Your task to perform on an android device: change the clock display to digital Image 0: 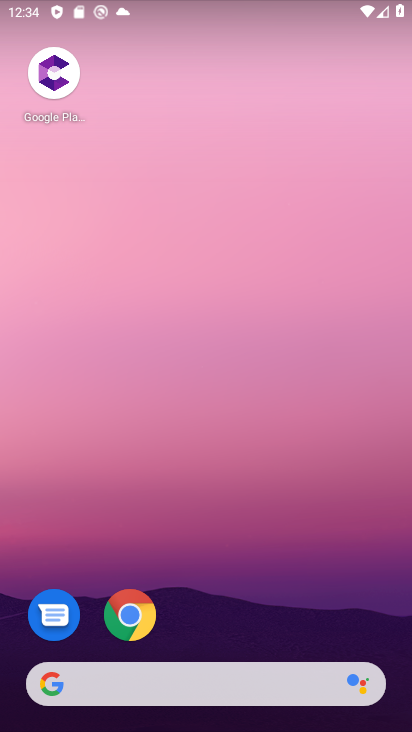
Step 0: drag from (22, 391) to (405, 371)
Your task to perform on an android device: change the clock display to digital Image 1: 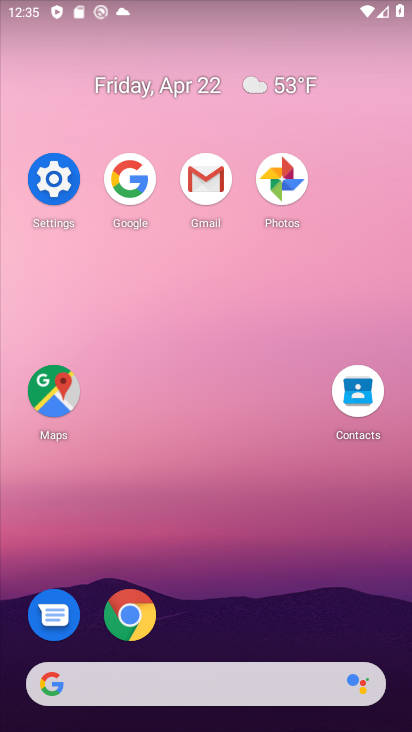
Step 1: drag from (234, 466) to (263, 157)
Your task to perform on an android device: change the clock display to digital Image 2: 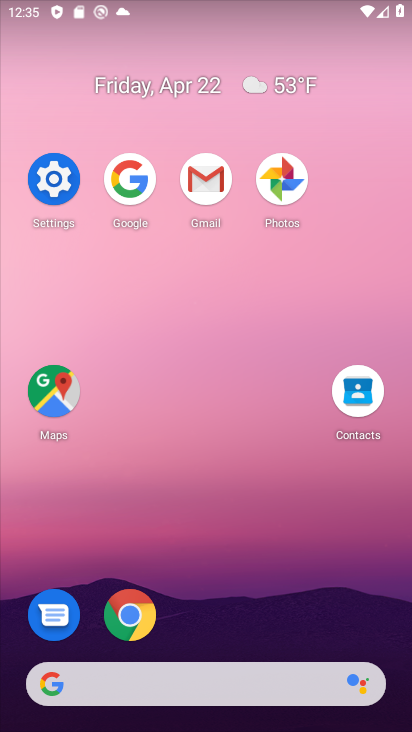
Step 2: drag from (249, 636) to (249, 107)
Your task to perform on an android device: change the clock display to digital Image 3: 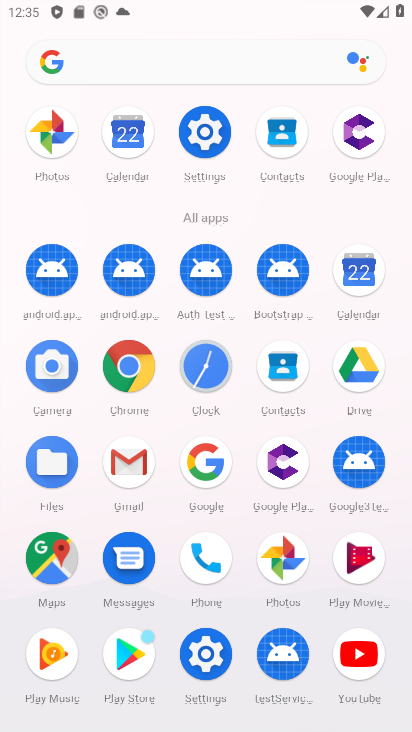
Step 3: drag from (199, 370) to (72, 288)
Your task to perform on an android device: change the clock display to digital Image 4: 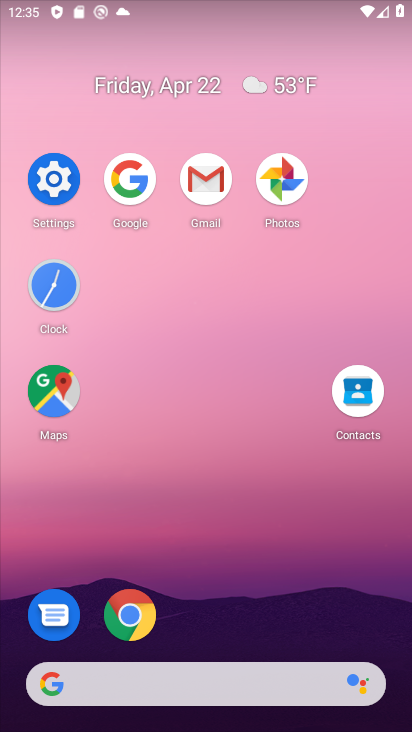
Step 4: click (56, 287)
Your task to perform on an android device: change the clock display to digital Image 5: 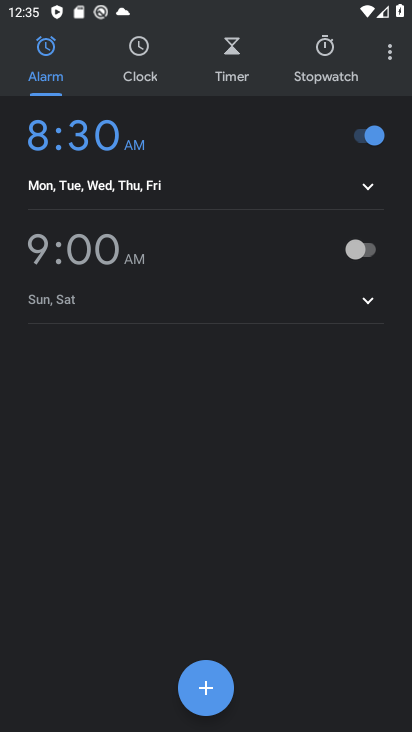
Step 5: click (376, 50)
Your task to perform on an android device: change the clock display to digital Image 6: 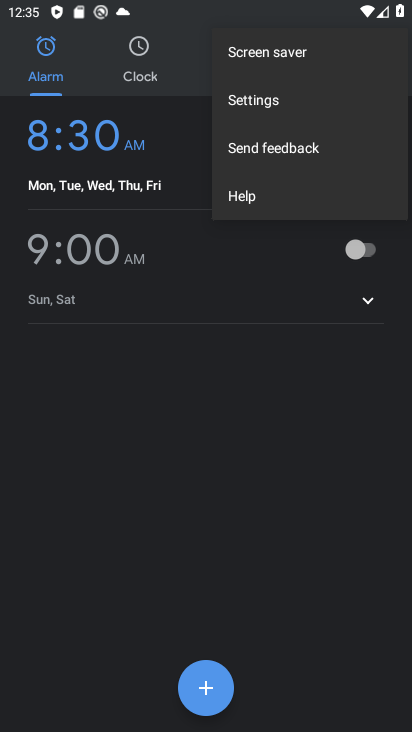
Step 6: click (274, 119)
Your task to perform on an android device: change the clock display to digital Image 7: 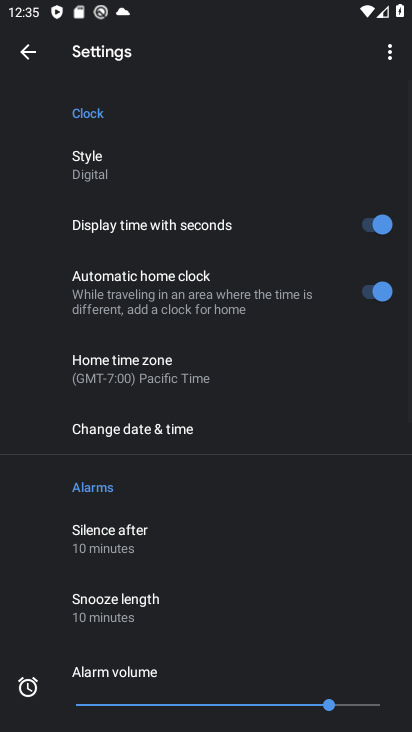
Step 7: click (118, 183)
Your task to perform on an android device: change the clock display to digital Image 8: 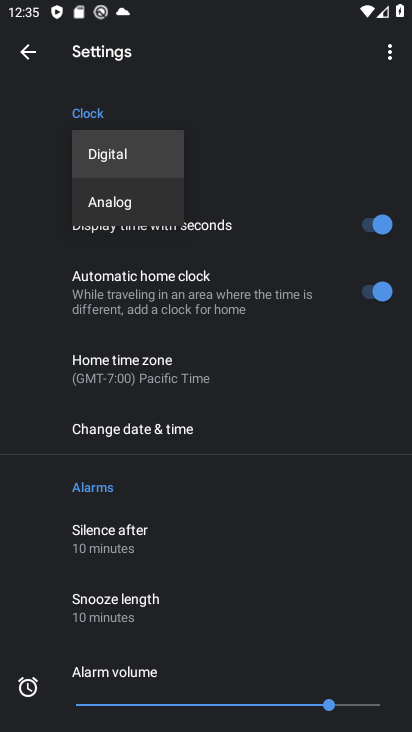
Step 8: task complete